Your task to perform on an android device: Open Yahoo.com Image 0: 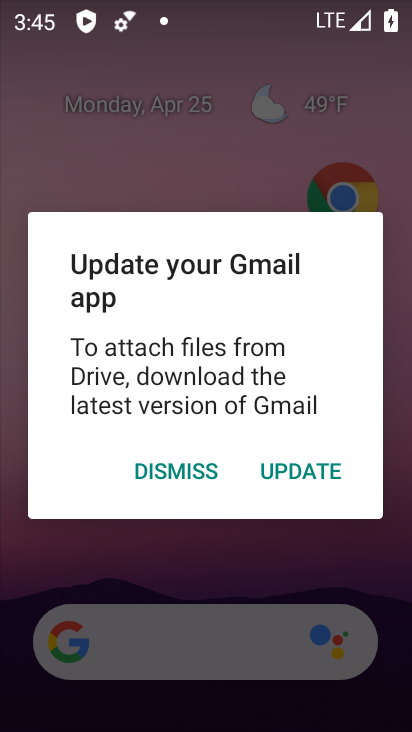
Step 0: press home button
Your task to perform on an android device: Open Yahoo.com Image 1: 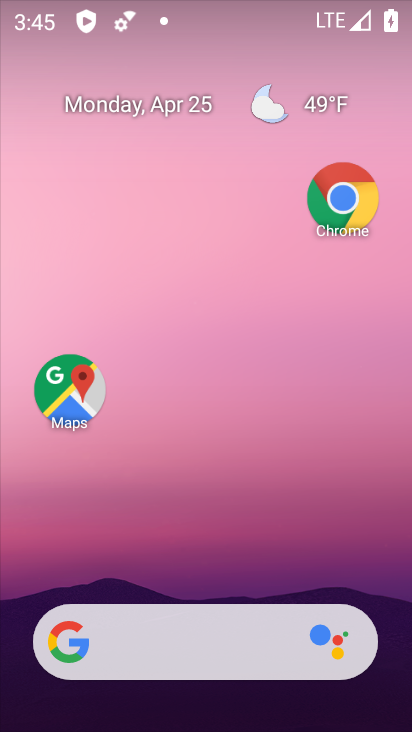
Step 1: drag from (161, 646) to (313, 154)
Your task to perform on an android device: Open Yahoo.com Image 2: 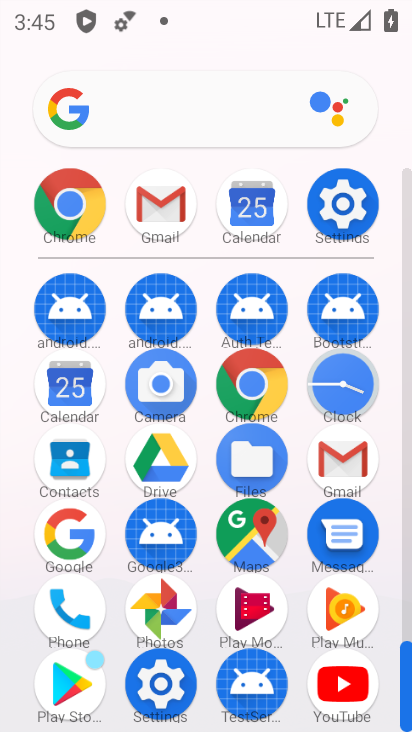
Step 2: click (63, 227)
Your task to perform on an android device: Open Yahoo.com Image 3: 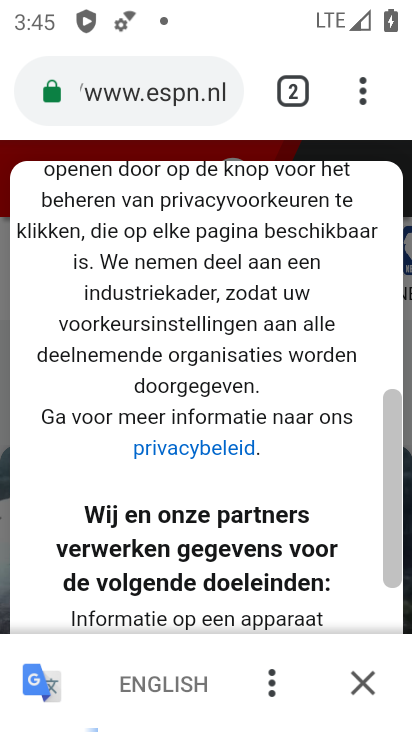
Step 3: drag from (365, 101) to (102, 297)
Your task to perform on an android device: Open Yahoo.com Image 4: 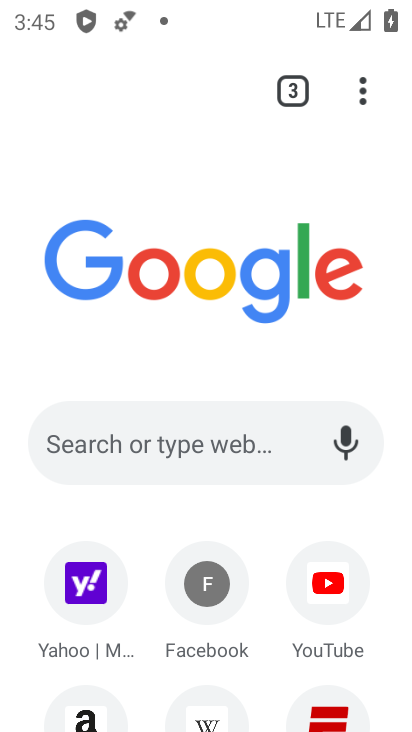
Step 4: drag from (145, 593) to (276, 316)
Your task to perform on an android device: Open Yahoo.com Image 5: 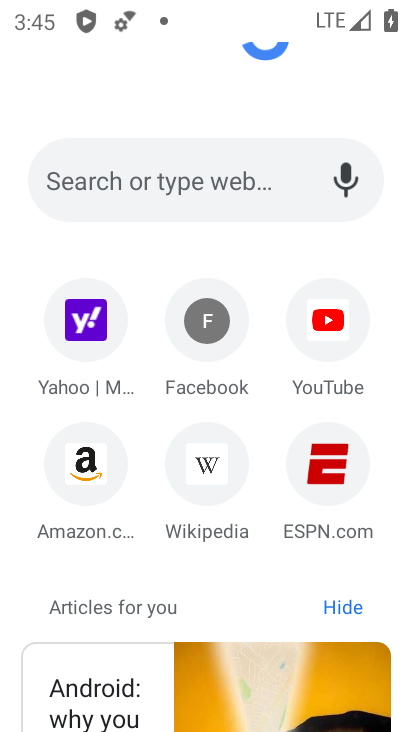
Step 5: click (83, 326)
Your task to perform on an android device: Open Yahoo.com Image 6: 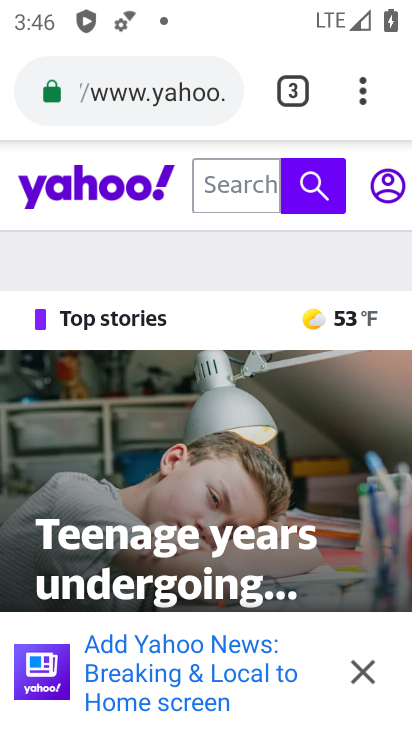
Step 6: task complete